Your task to perform on an android device: What's on my calendar tomorrow? Image 0: 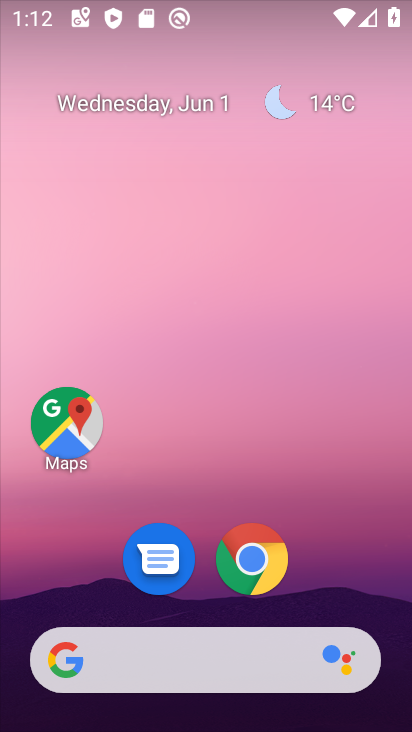
Step 0: drag from (392, 689) to (311, 214)
Your task to perform on an android device: What's on my calendar tomorrow? Image 1: 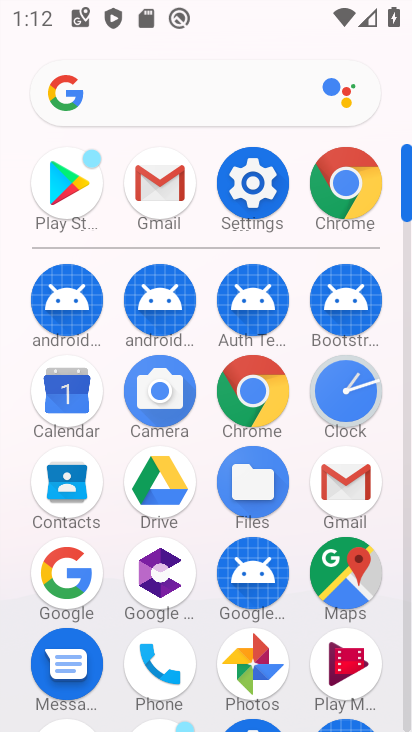
Step 1: click (60, 391)
Your task to perform on an android device: What's on my calendar tomorrow? Image 2: 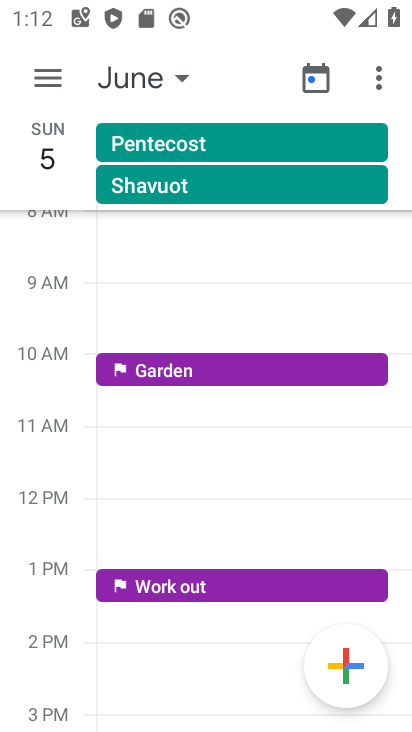
Step 2: click (167, 81)
Your task to perform on an android device: What's on my calendar tomorrow? Image 3: 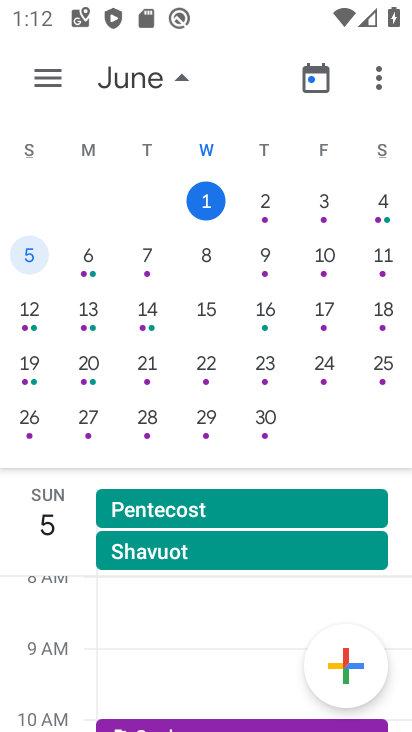
Step 3: click (261, 204)
Your task to perform on an android device: What's on my calendar tomorrow? Image 4: 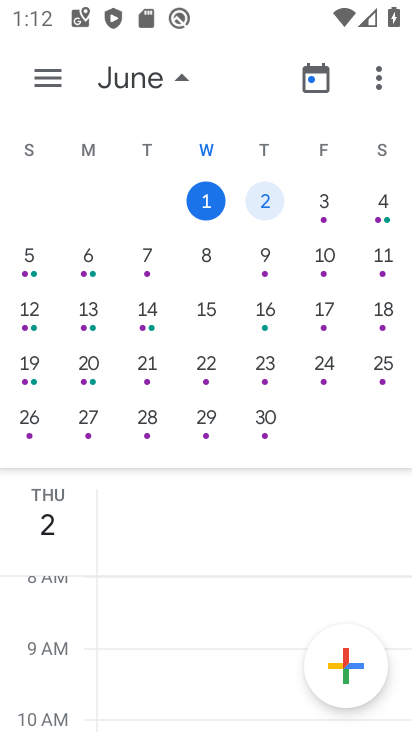
Step 4: click (40, 76)
Your task to perform on an android device: What's on my calendar tomorrow? Image 5: 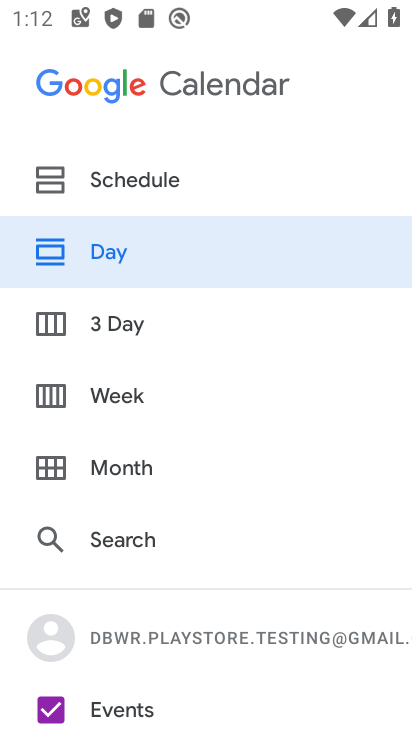
Step 5: click (116, 180)
Your task to perform on an android device: What's on my calendar tomorrow? Image 6: 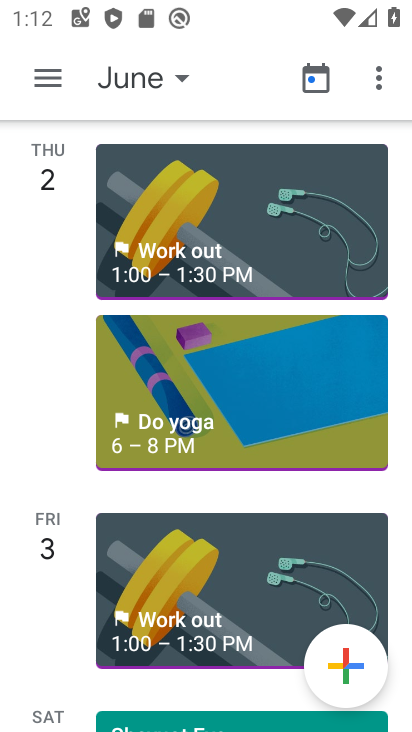
Step 6: task complete